Your task to perform on an android device: change text size in settings app Image 0: 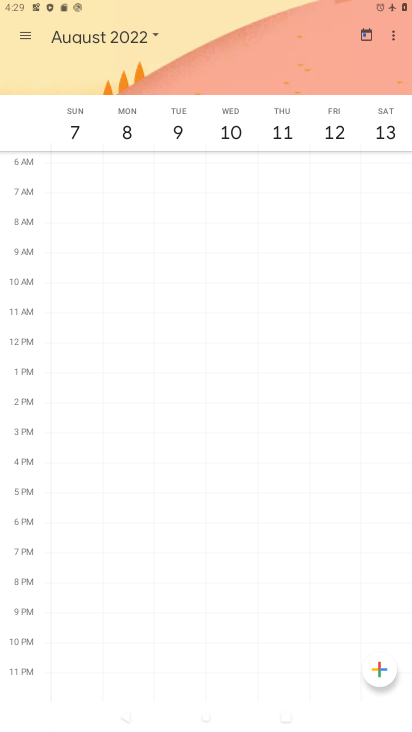
Step 0: press home button
Your task to perform on an android device: change text size in settings app Image 1: 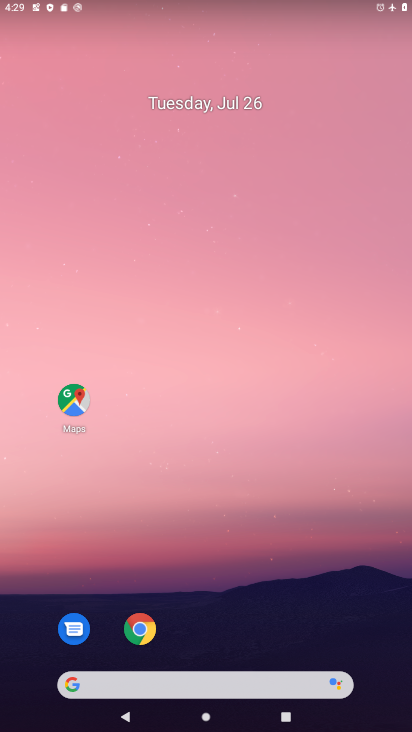
Step 1: drag from (220, 663) to (216, 295)
Your task to perform on an android device: change text size in settings app Image 2: 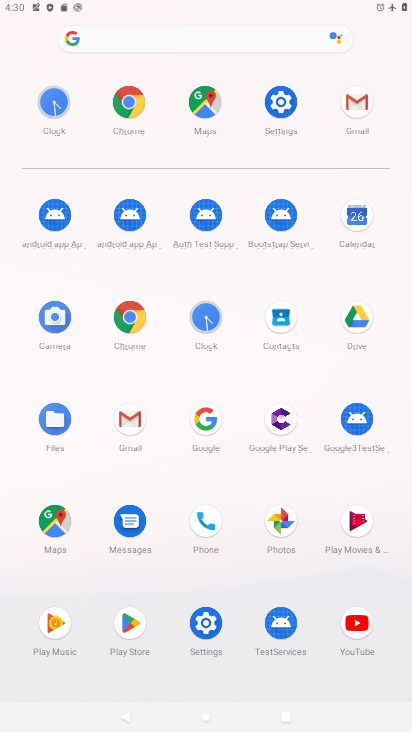
Step 2: click (202, 628)
Your task to perform on an android device: change text size in settings app Image 3: 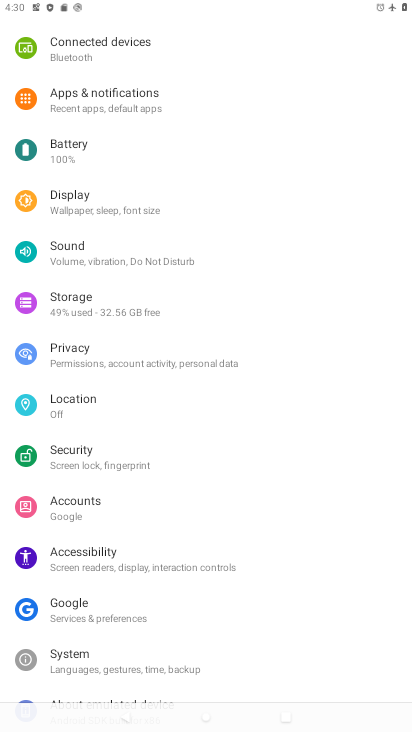
Step 3: click (105, 211)
Your task to perform on an android device: change text size in settings app Image 4: 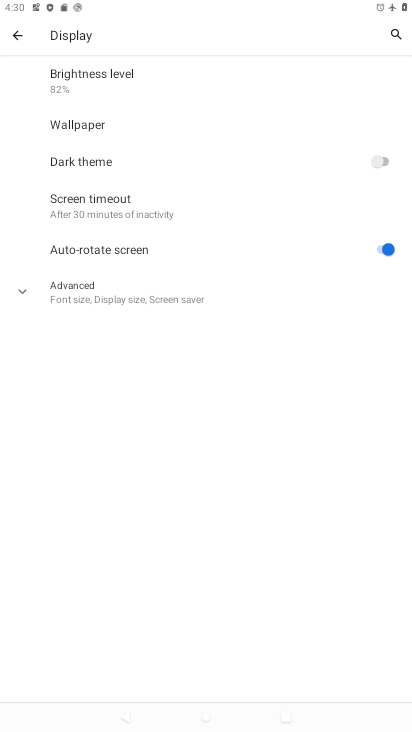
Step 4: click (128, 295)
Your task to perform on an android device: change text size in settings app Image 5: 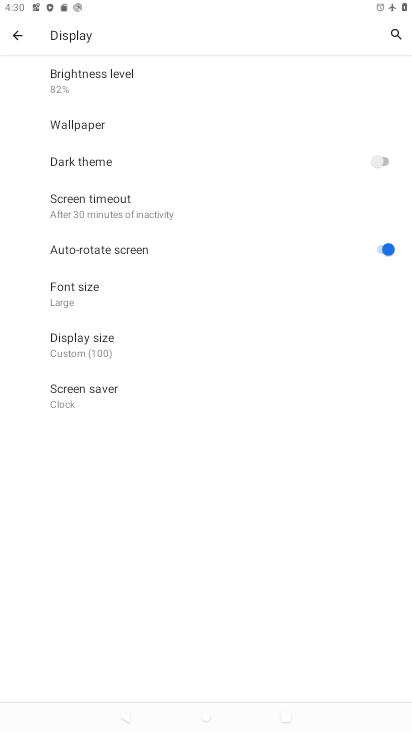
Step 5: click (71, 292)
Your task to perform on an android device: change text size in settings app Image 6: 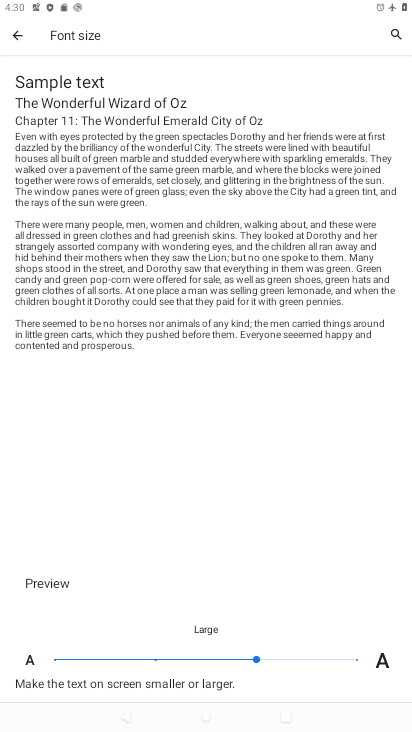
Step 6: click (357, 660)
Your task to perform on an android device: change text size in settings app Image 7: 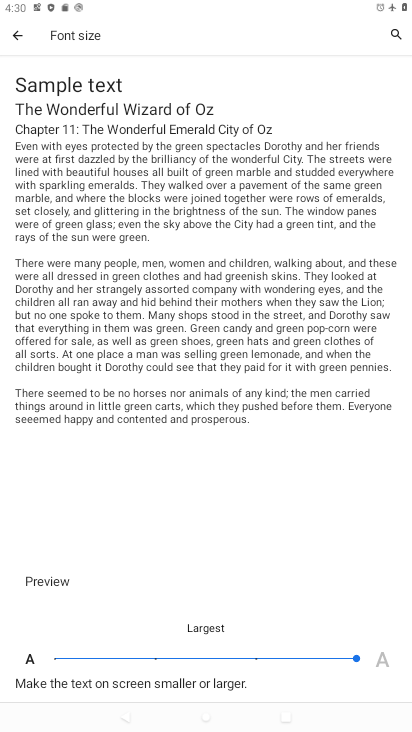
Step 7: task complete